Your task to perform on an android device: Open the web browser Image 0: 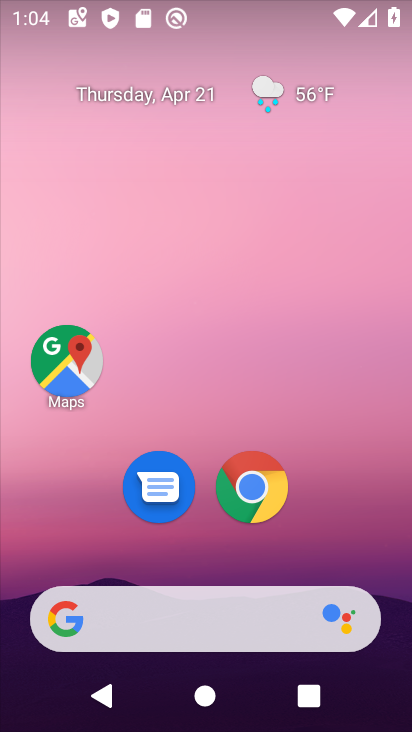
Step 0: drag from (344, 515) to (336, 613)
Your task to perform on an android device: Open the web browser Image 1: 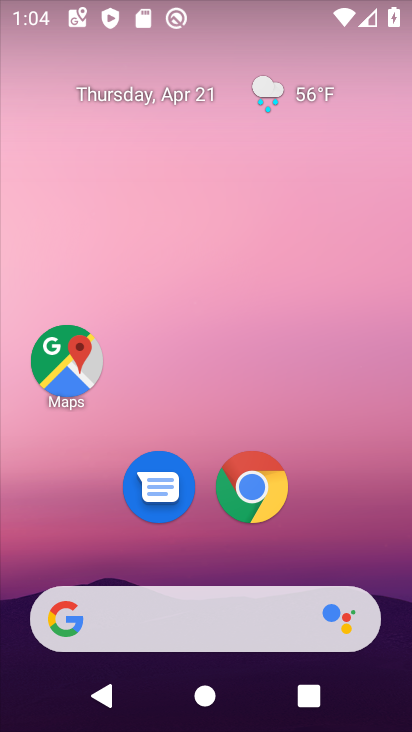
Step 1: click (261, 485)
Your task to perform on an android device: Open the web browser Image 2: 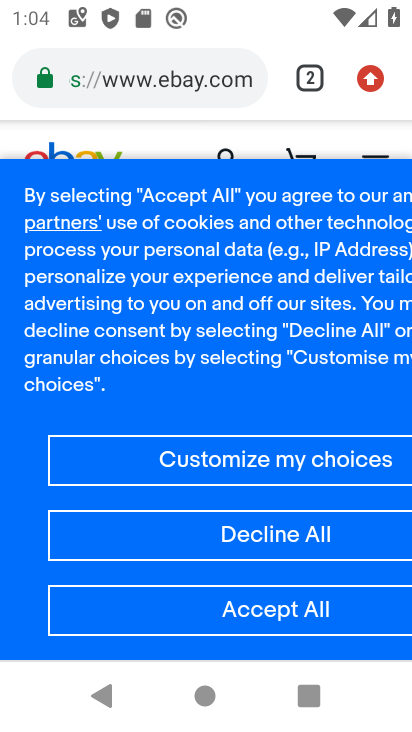
Step 2: task complete